Your task to perform on an android device: Open calendar and show me the fourth week of next month Image 0: 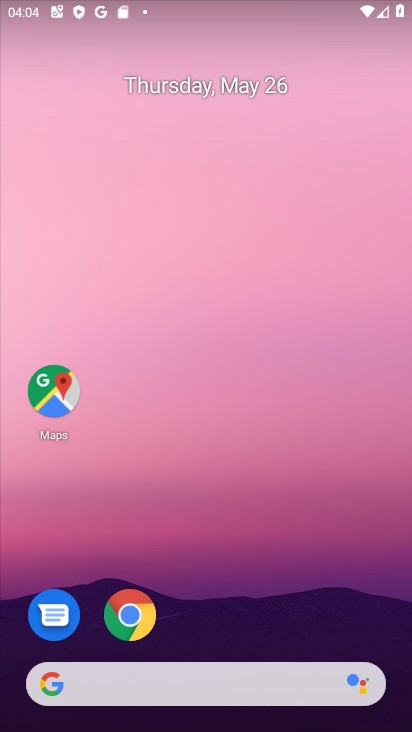
Step 0: drag from (210, 630) to (225, 131)
Your task to perform on an android device: Open calendar and show me the fourth week of next month Image 1: 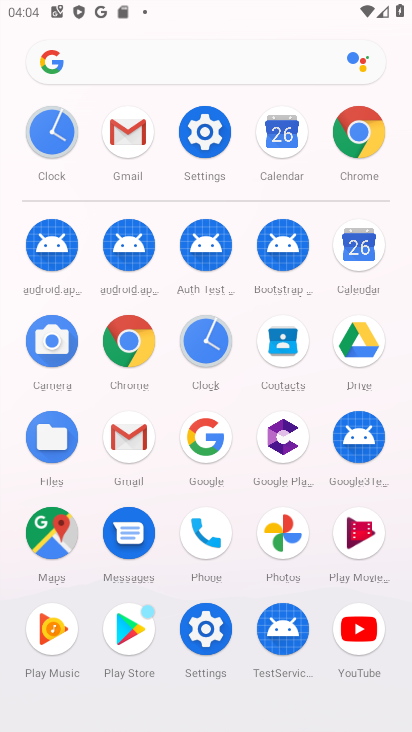
Step 1: click (355, 262)
Your task to perform on an android device: Open calendar and show me the fourth week of next month Image 2: 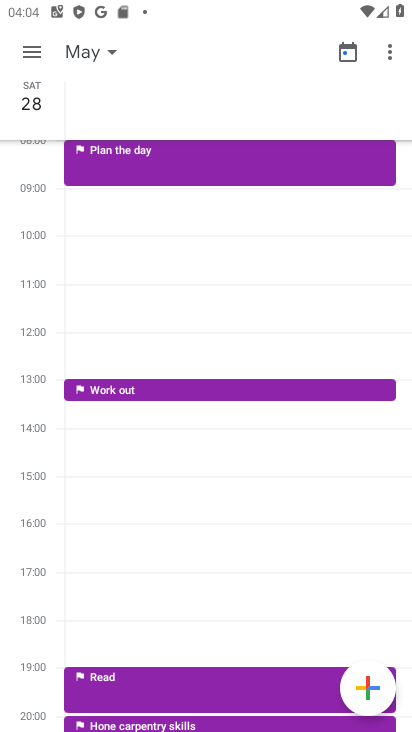
Step 2: click (81, 44)
Your task to perform on an android device: Open calendar and show me the fourth week of next month Image 3: 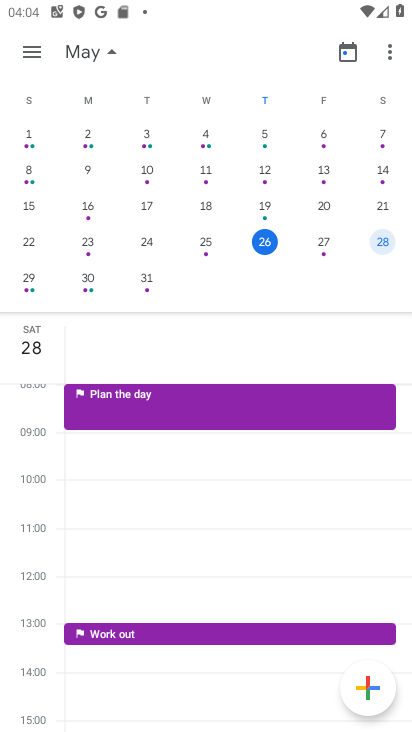
Step 3: drag from (354, 191) to (42, 161)
Your task to perform on an android device: Open calendar and show me the fourth week of next month Image 4: 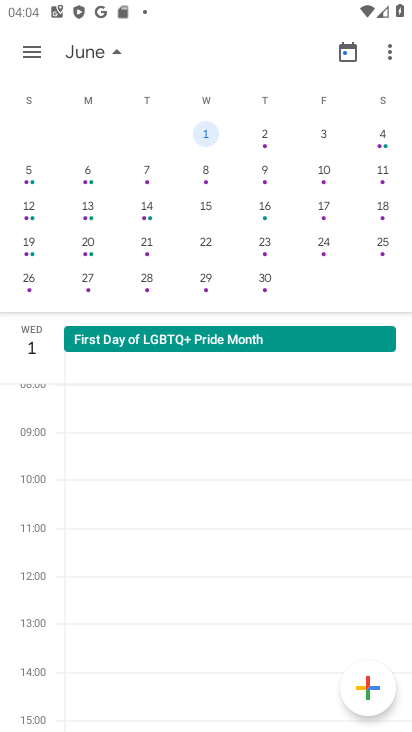
Step 4: click (30, 280)
Your task to perform on an android device: Open calendar and show me the fourth week of next month Image 5: 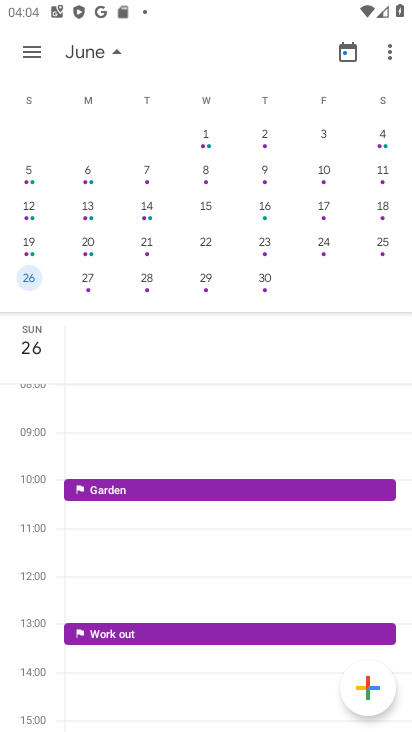
Step 5: click (30, 50)
Your task to perform on an android device: Open calendar and show me the fourth week of next month Image 6: 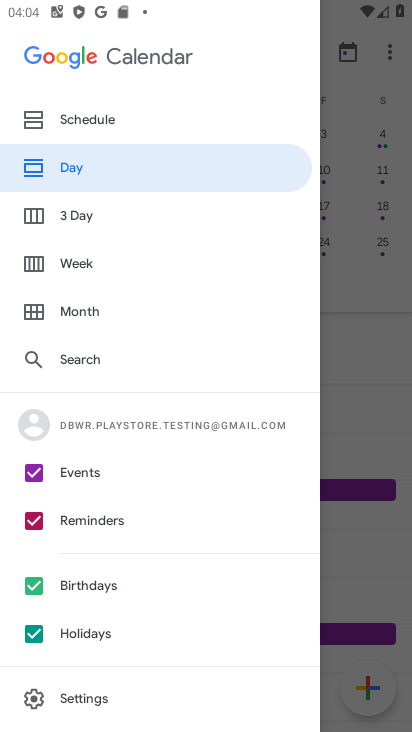
Step 6: click (77, 262)
Your task to perform on an android device: Open calendar and show me the fourth week of next month Image 7: 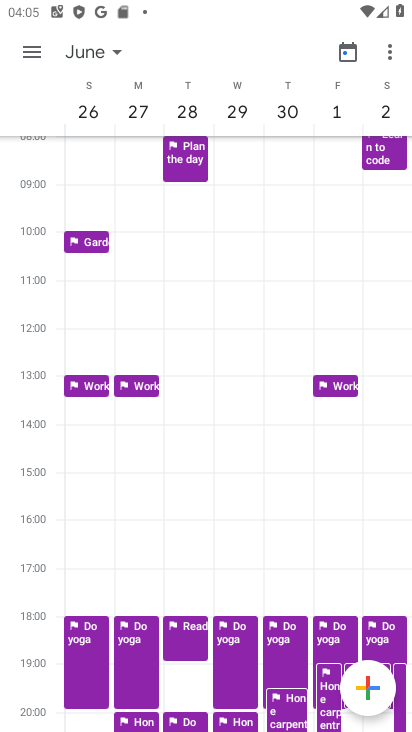
Step 7: task complete